Your task to perform on an android device: Open the calendar app, open the side menu, and click the "Day" option Image 0: 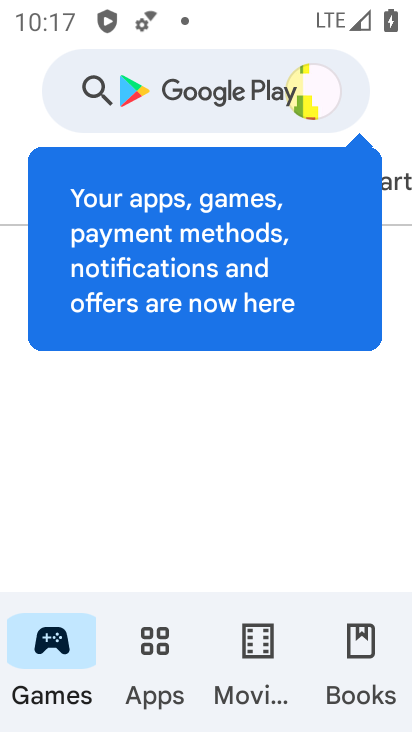
Step 0: press home button
Your task to perform on an android device: Open the calendar app, open the side menu, and click the "Day" option Image 1: 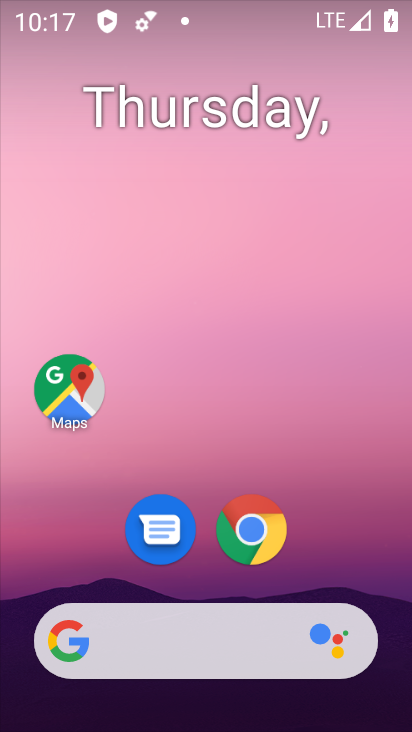
Step 1: drag from (309, 568) to (296, 74)
Your task to perform on an android device: Open the calendar app, open the side menu, and click the "Day" option Image 2: 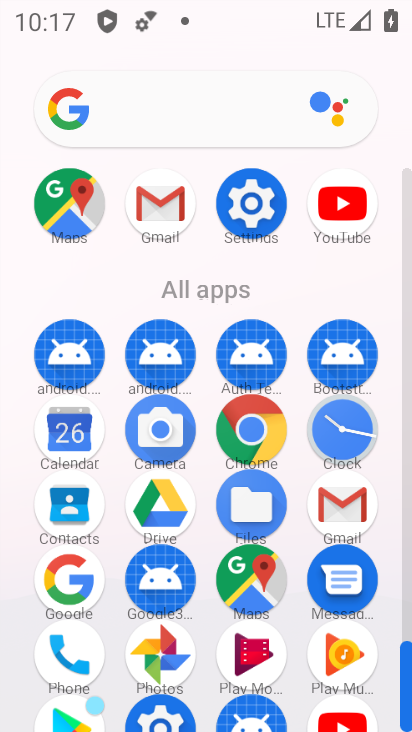
Step 2: click (71, 452)
Your task to perform on an android device: Open the calendar app, open the side menu, and click the "Day" option Image 3: 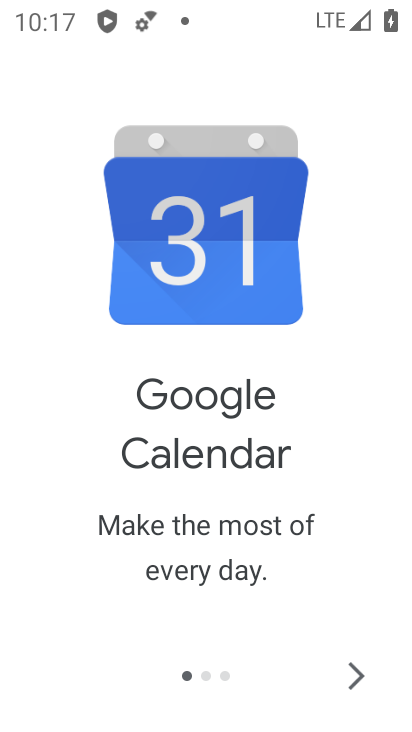
Step 3: click (355, 686)
Your task to perform on an android device: Open the calendar app, open the side menu, and click the "Day" option Image 4: 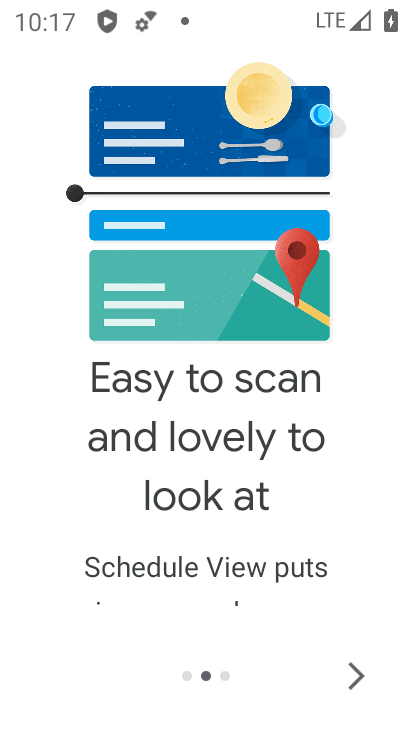
Step 4: click (355, 686)
Your task to perform on an android device: Open the calendar app, open the side menu, and click the "Day" option Image 5: 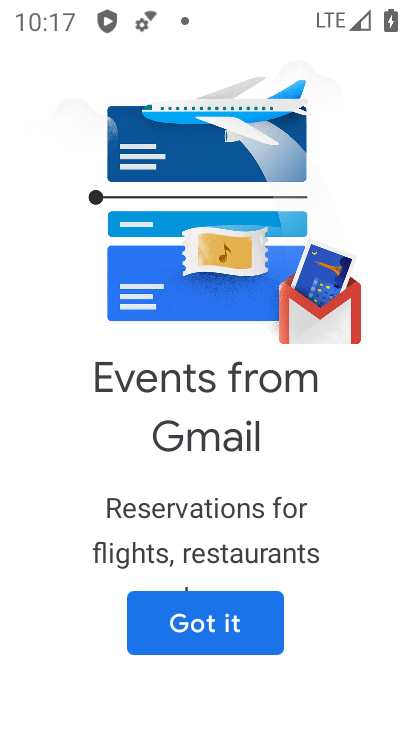
Step 5: click (141, 617)
Your task to perform on an android device: Open the calendar app, open the side menu, and click the "Day" option Image 6: 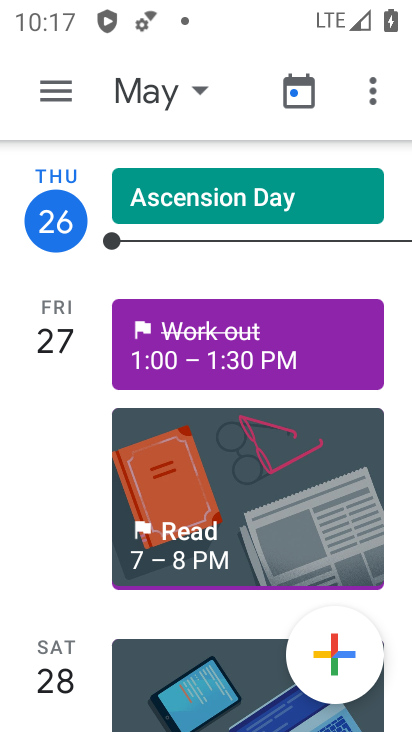
Step 6: click (55, 97)
Your task to perform on an android device: Open the calendar app, open the side menu, and click the "Day" option Image 7: 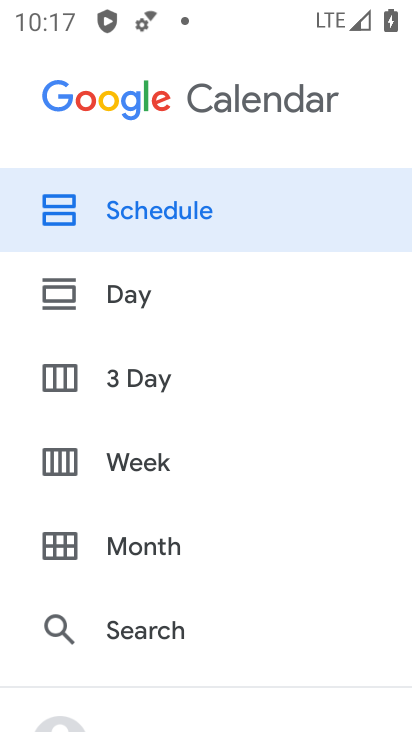
Step 7: click (125, 297)
Your task to perform on an android device: Open the calendar app, open the side menu, and click the "Day" option Image 8: 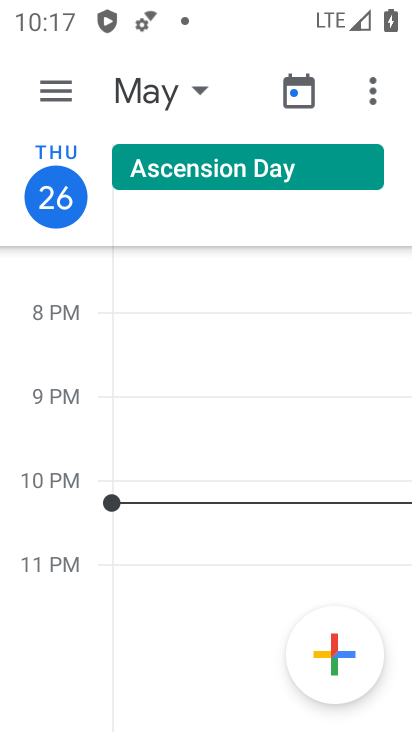
Step 8: task complete